Your task to perform on an android device: toggle notifications settings in the gmail app Image 0: 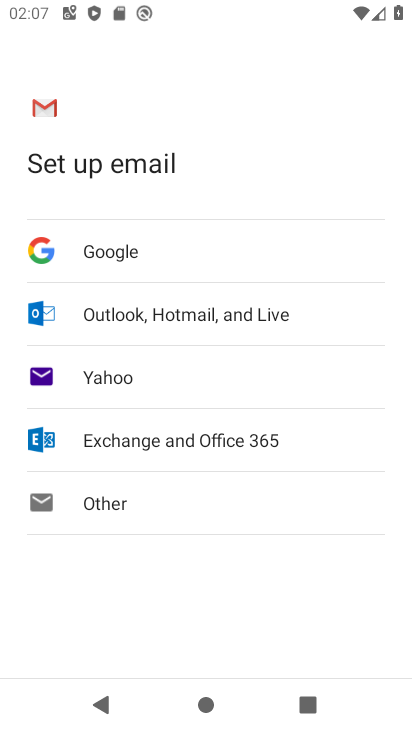
Step 0: drag from (162, 590) to (292, 180)
Your task to perform on an android device: toggle notifications settings in the gmail app Image 1: 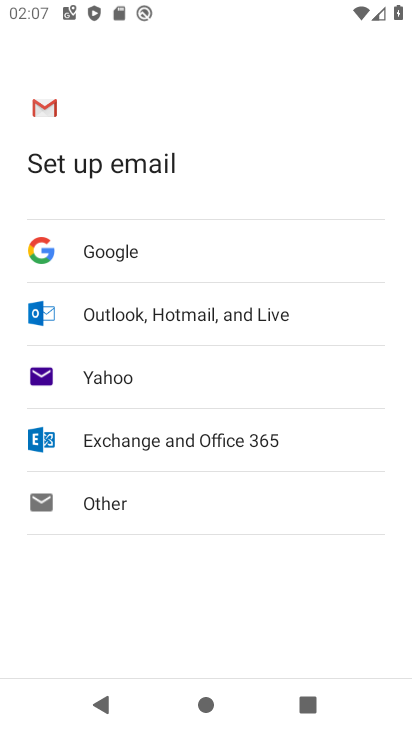
Step 1: press home button
Your task to perform on an android device: toggle notifications settings in the gmail app Image 2: 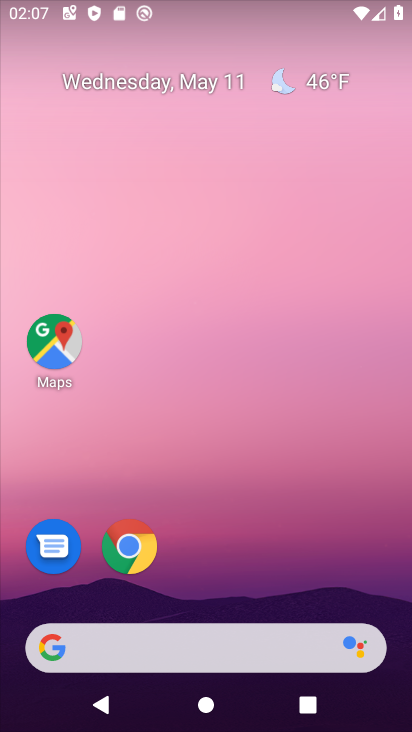
Step 2: drag from (189, 590) to (276, 34)
Your task to perform on an android device: toggle notifications settings in the gmail app Image 3: 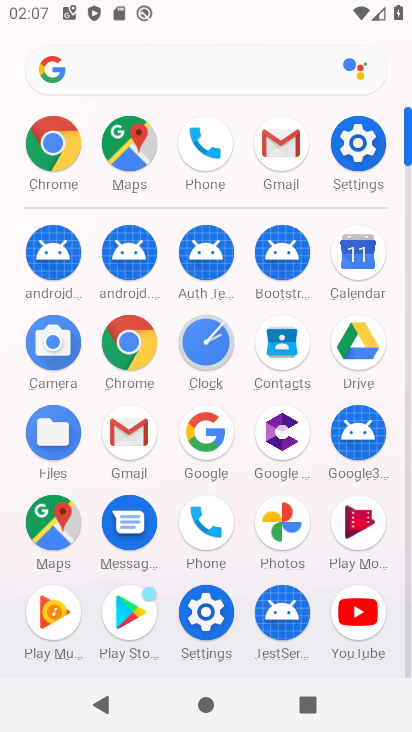
Step 3: click (138, 434)
Your task to perform on an android device: toggle notifications settings in the gmail app Image 4: 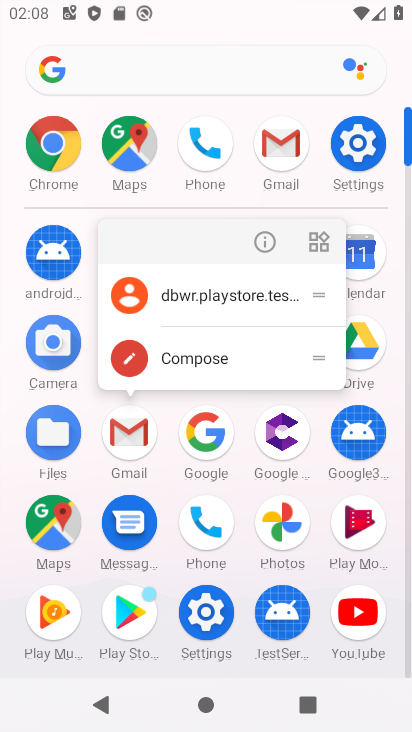
Step 4: click (268, 250)
Your task to perform on an android device: toggle notifications settings in the gmail app Image 5: 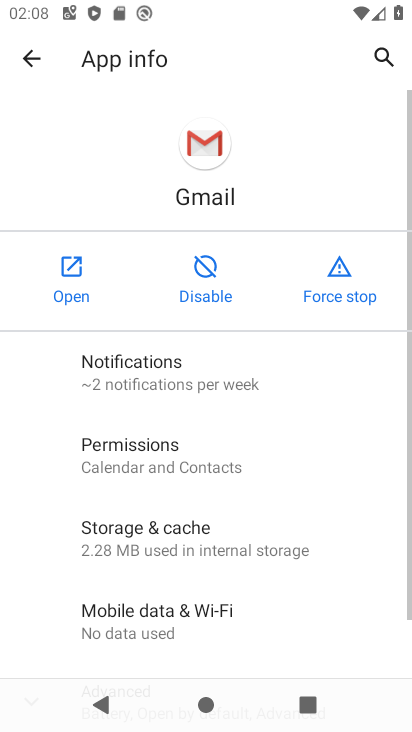
Step 5: click (68, 271)
Your task to perform on an android device: toggle notifications settings in the gmail app Image 6: 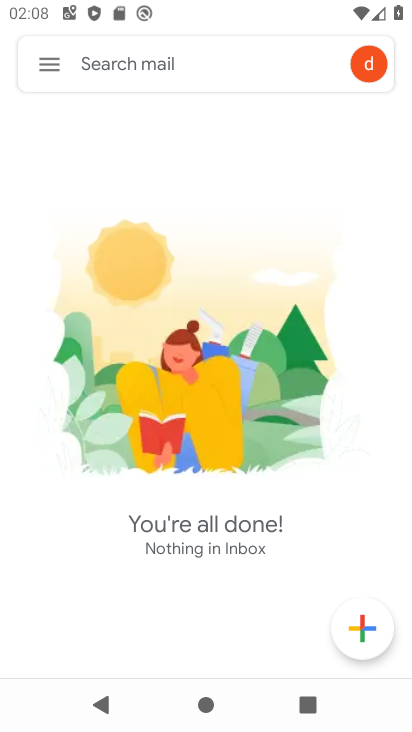
Step 6: click (49, 55)
Your task to perform on an android device: toggle notifications settings in the gmail app Image 7: 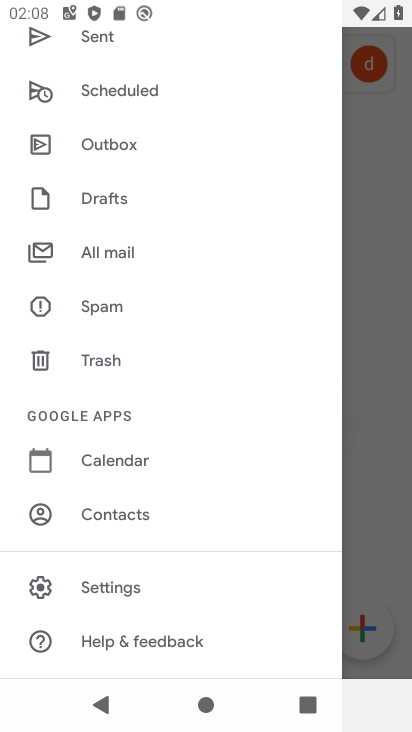
Step 7: click (121, 581)
Your task to perform on an android device: toggle notifications settings in the gmail app Image 8: 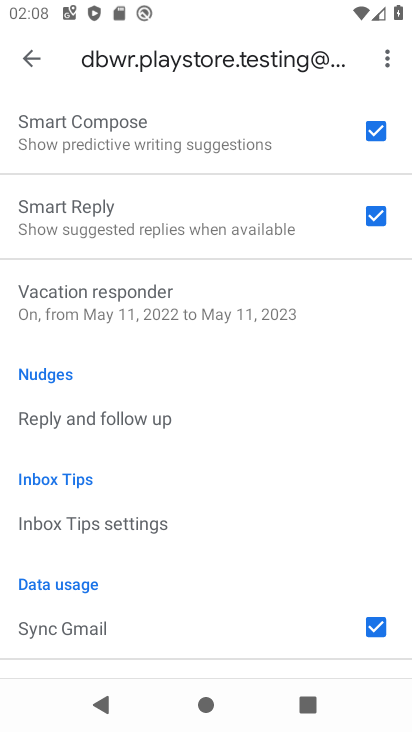
Step 8: drag from (199, 261) to (225, 721)
Your task to perform on an android device: toggle notifications settings in the gmail app Image 9: 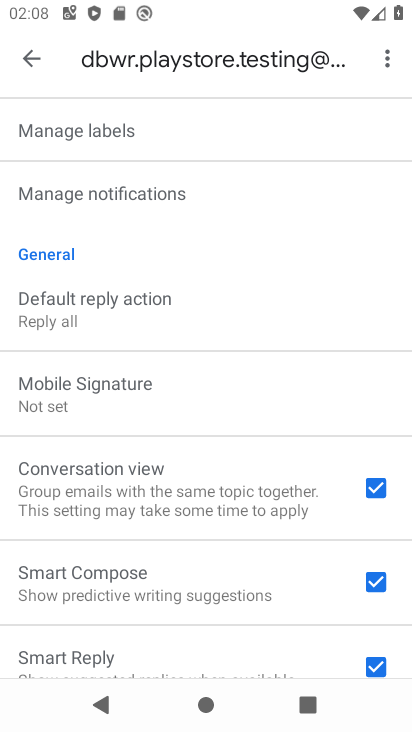
Step 9: click (193, 205)
Your task to perform on an android device: toggle notifications settings in the gmail app Image 10: 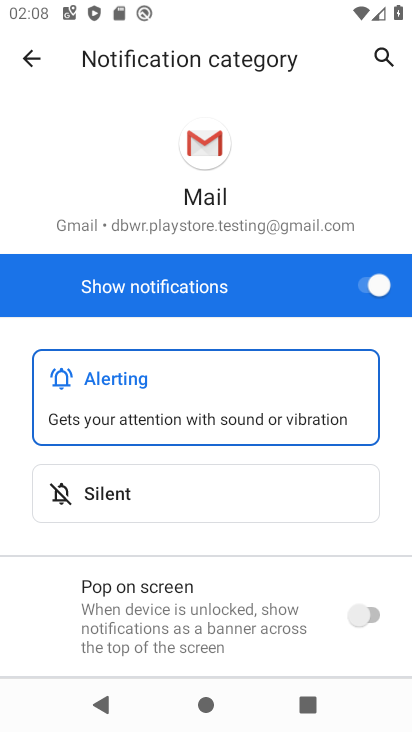
Step 10: drag from (130, 622) to (290, 119)
Your task to perform on an android device: toggle notifications settings in the gmail app Image 11: 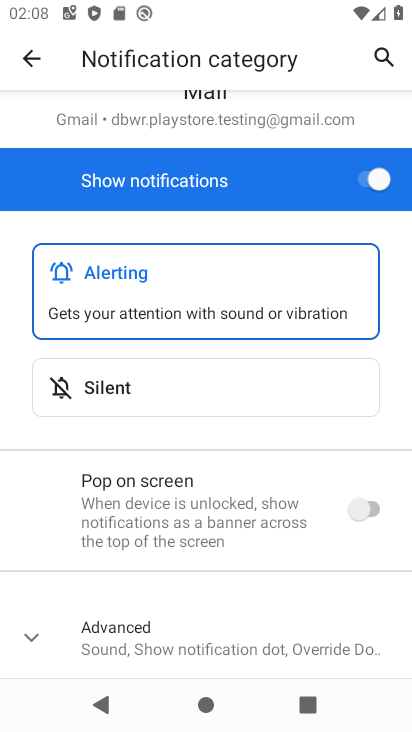
Step 11: click (358, 192)
Your task to perform on an android device: toggle notifications settings in the gmail app Image 12: 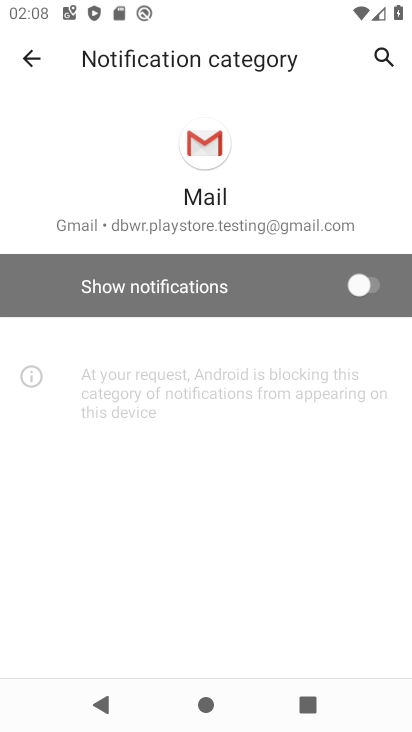
Step 12: task complete